Your task to perform on an android device: open device folders in google photos Image 0: 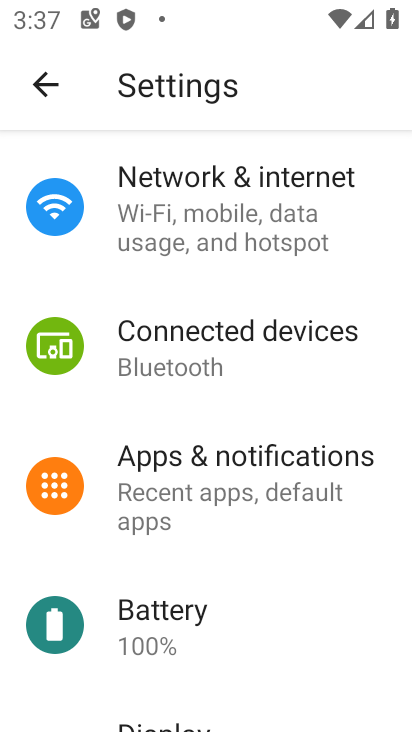
Step 0: press home button
Your task to perform on an android device: open device folders in google photos Image 1: 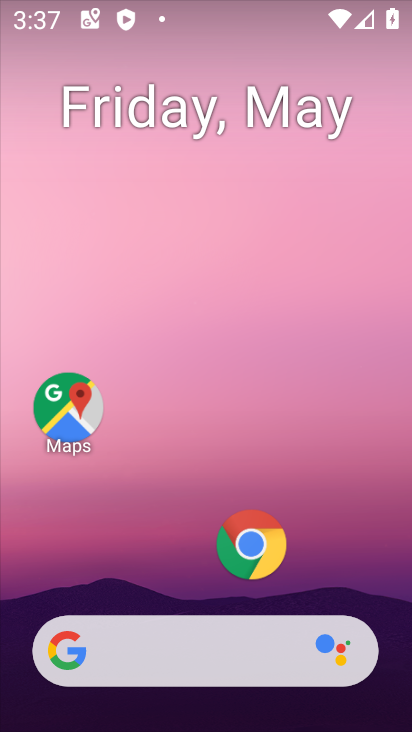
Step 1: drag from (202, 591) to (202, 256)
Your task to perform on an android device: open device folders in google photos Image 2: 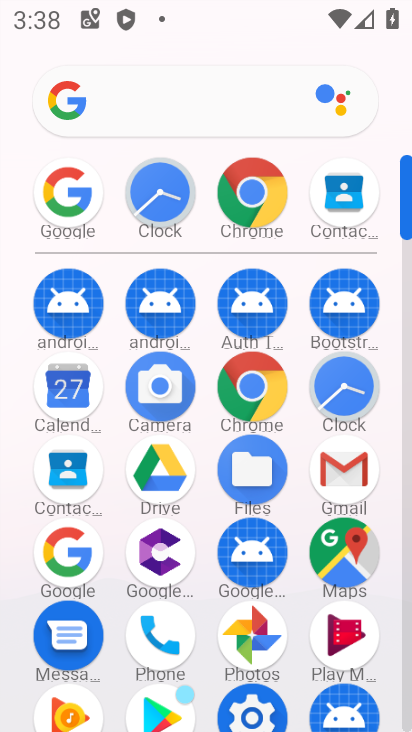
Step 2: click (248, 623)
Your task to perform on an android device: open device folders in google photos Image 3: 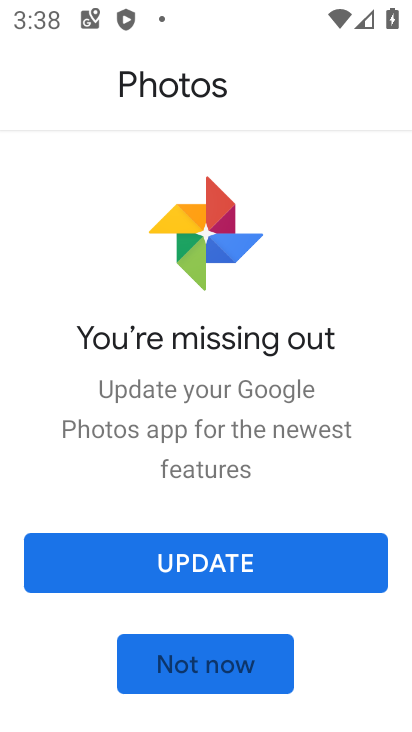
Step 3: click (195, 650)
Your task to perform on an android device: open device folders in google photos Image 4: 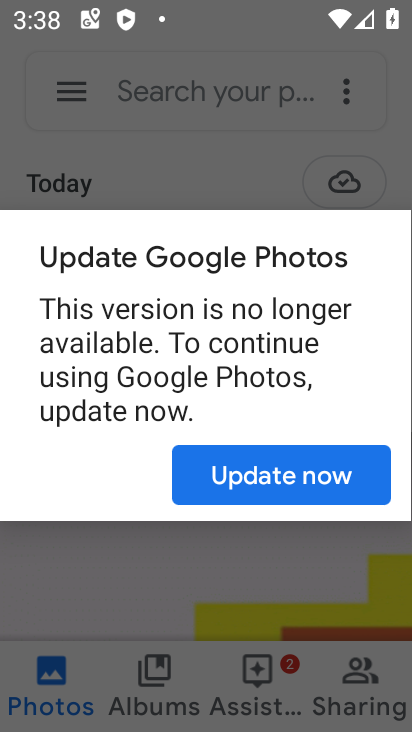
Step 4: click (248, 477)
Your task to perform on an android device: open device folders in google photos Image 5: 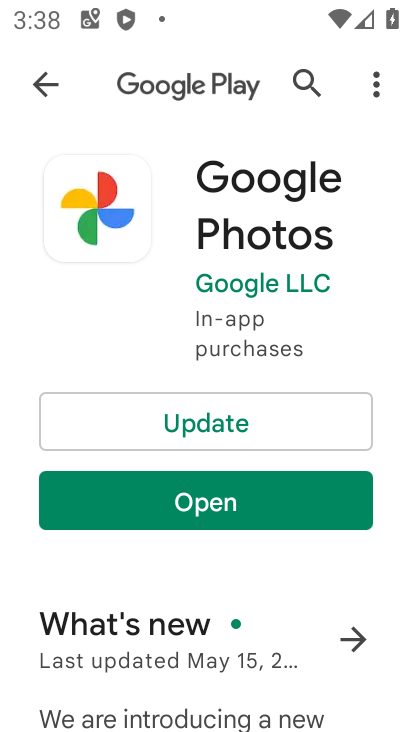
Step 5: click (298, 491)
Your task to perform on an android device: open device folders in google photos Image 6: 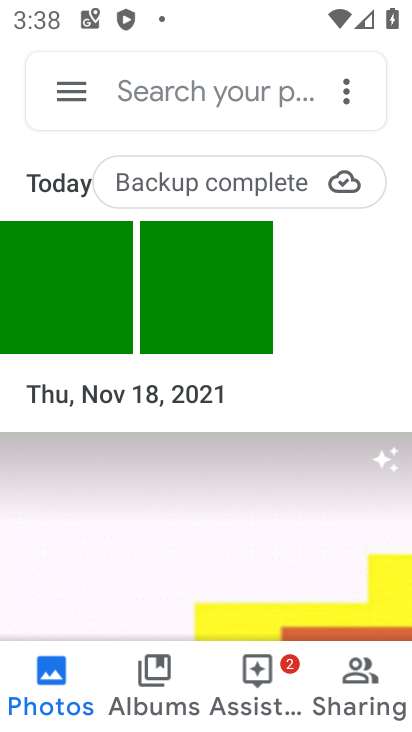
Step 6: click (54, 99)
Your task to perform on an android device: open device folders in google photos Image 7: 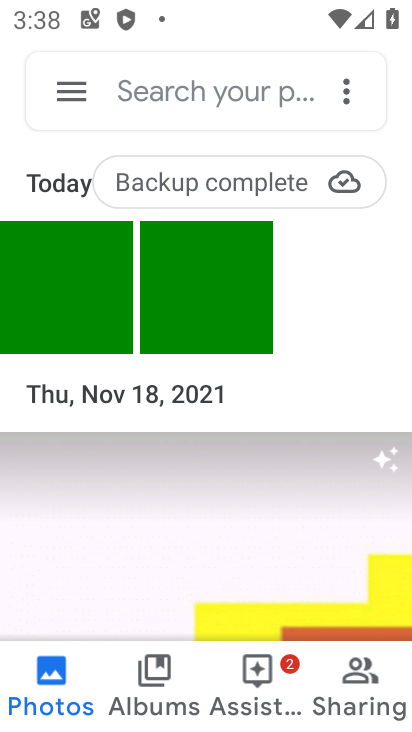
Step 7: click (63, 99)
Your task to perform on an android device: open device folders in google photos Image 8: 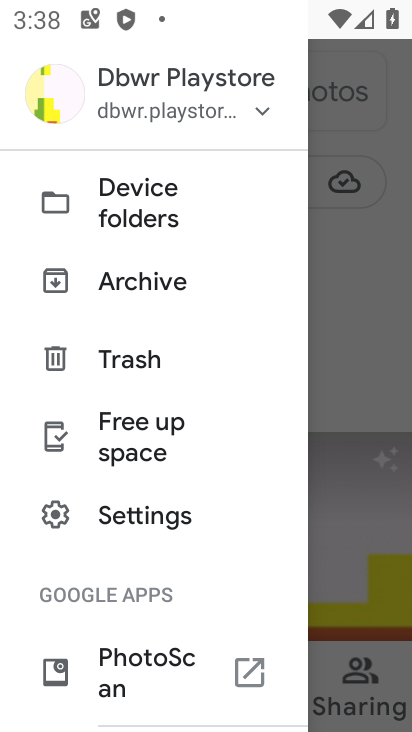
Step 8: click (73, 86)
Your task to perform on an android device: open device folders in google photos Image 9: 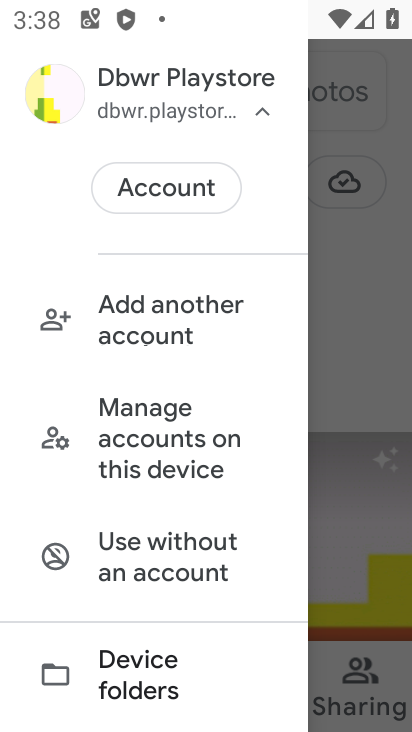
Step 9: click (162, 651)
Your task to perform on an android device: open device folders in google photos Image 10: 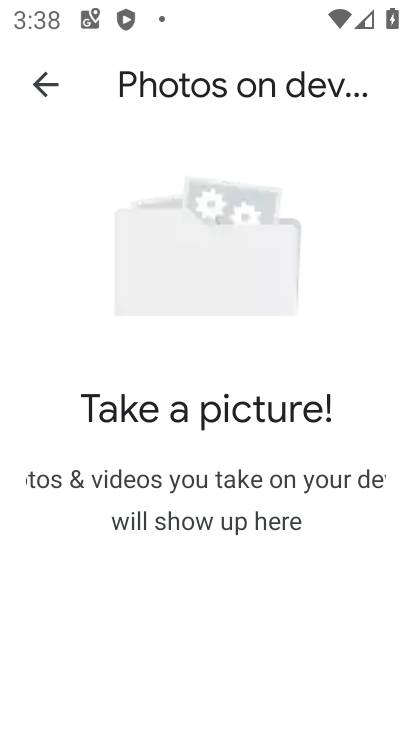
Step 10: task complete